Your task to perform on an android device: turn off data saver in the chrome app Image 0: 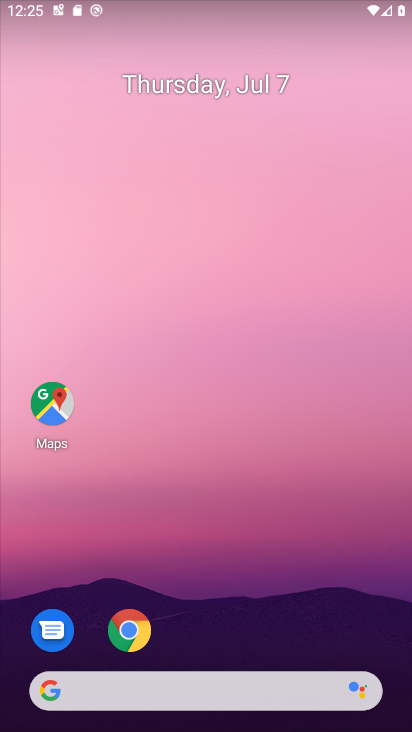
Step 0: drag from (295, 641) to (288, 310)
Your task to perform on an android device: turn off data saver in the chrome app Image 1: 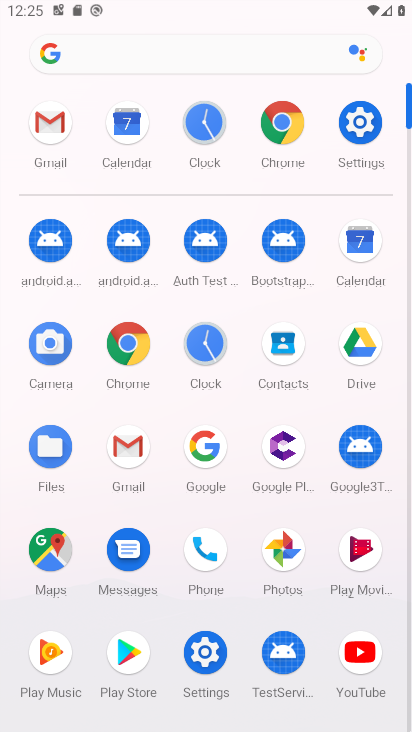
Step 1: click (274, 122)
Your task to perform on an android device: turn off data saver in the chrome app Image 2: 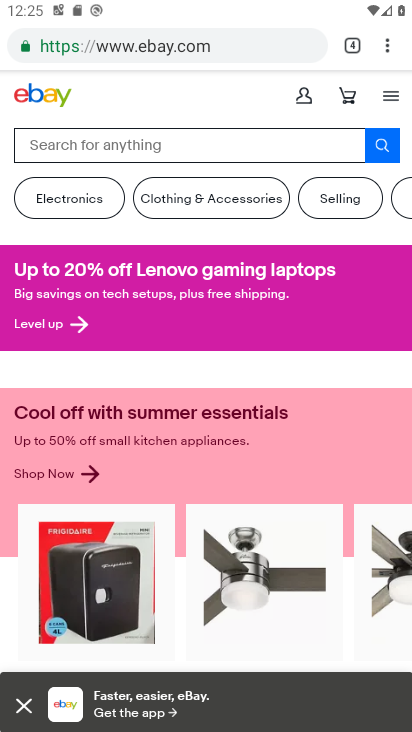
Step 2: click (399, 39)
Your task to perform on an android device: turn off data saver in the chrome app Image 3: 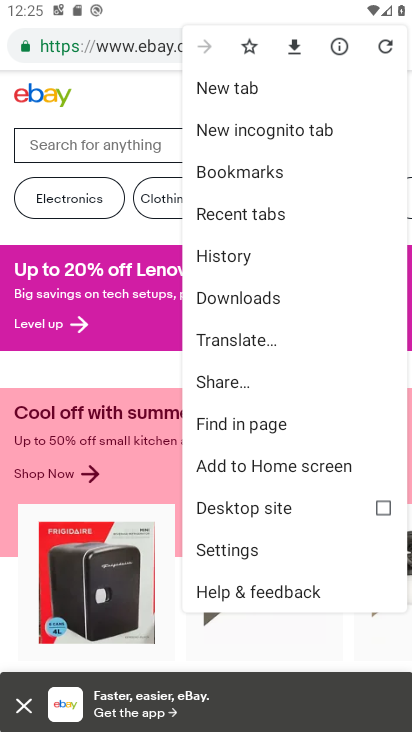
Step 3: click (268, 551)
Your task to perform on an android device: turn off data saver in the chrome app Image 4: 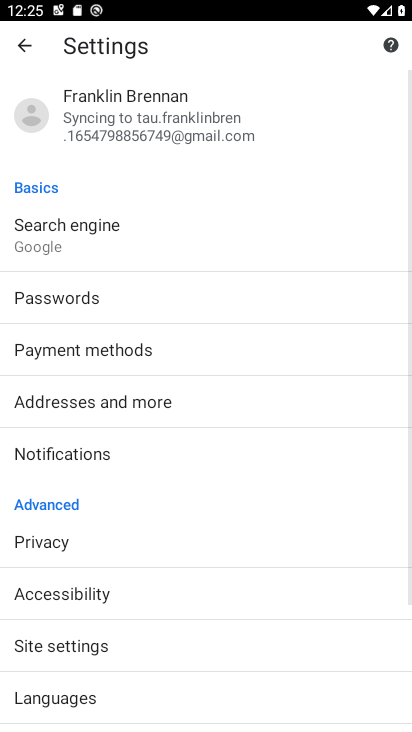
Step 4: drag from (182, 602) to (194, 277)
Your task to perform on an android device: turn off data saver in the chrome app Image 5: 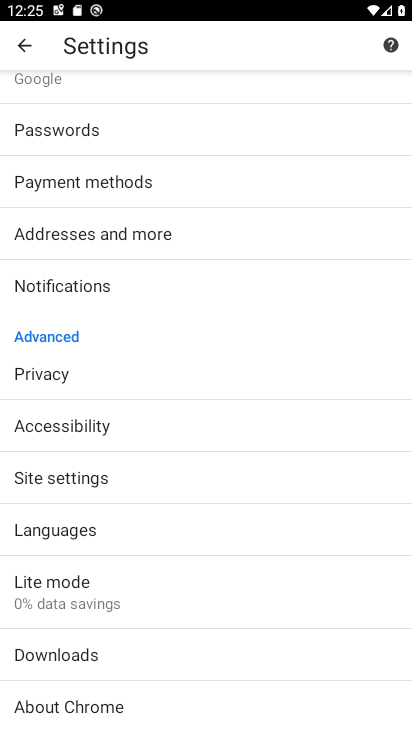
Step 5: click (99, 590)
Your task to perform on an android device: turn off data saver in the chrome app Image 6: 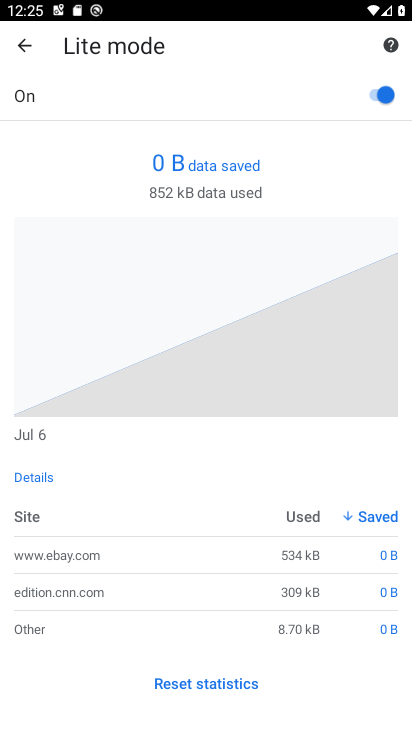
Step 6: click (372, 98)
Your task to perform on an android device: turn off data saver in the chrome app Image 7: 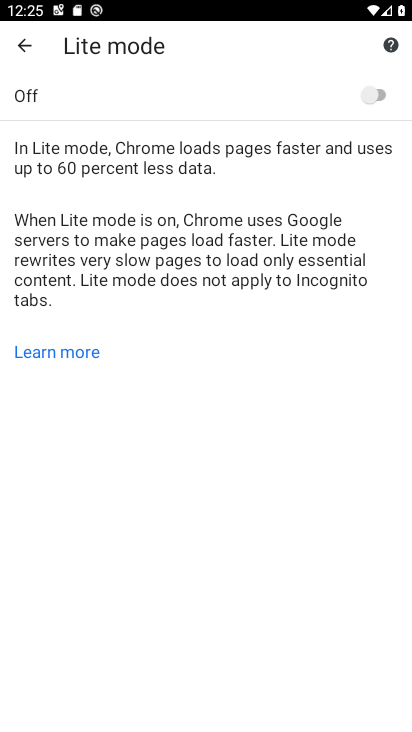
Step 7: task complete